Your task to perform on an android device: show emergency info Image 0: 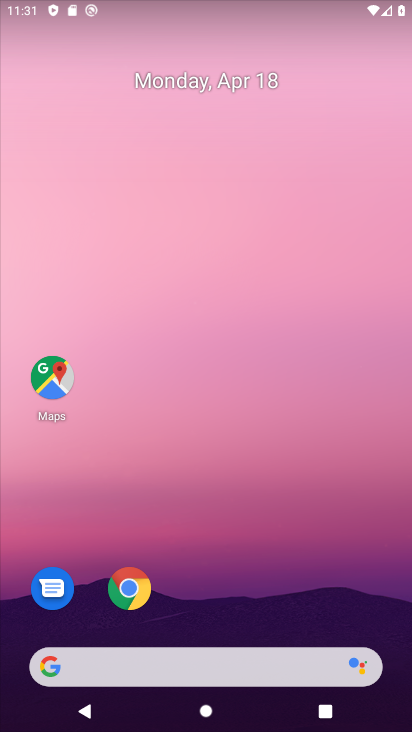
Step 0: click (250, 47)
Your task to perform on an android device: show emergency info Image 1: 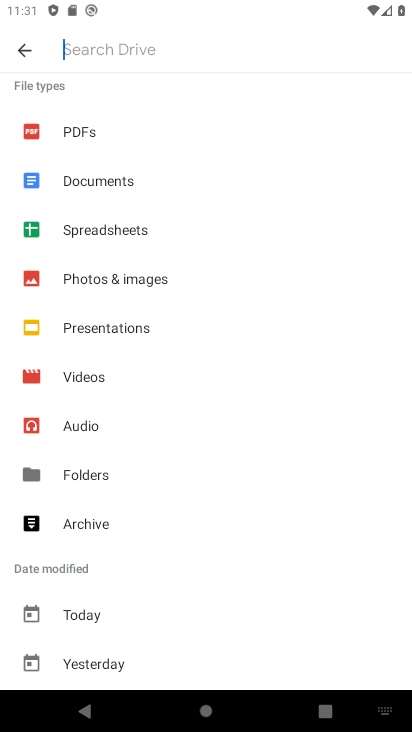
Step 1: press back button
Your task to perform on an android device: show emergency info Image 2: 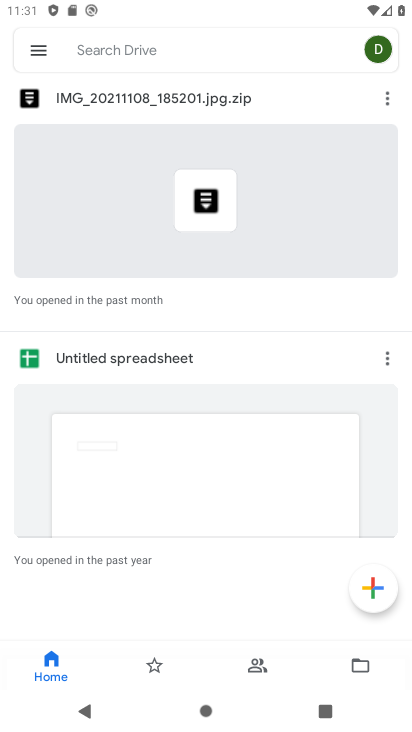
Step 2: press back button
Your task to perform on an android device: show emergency info Image 3: 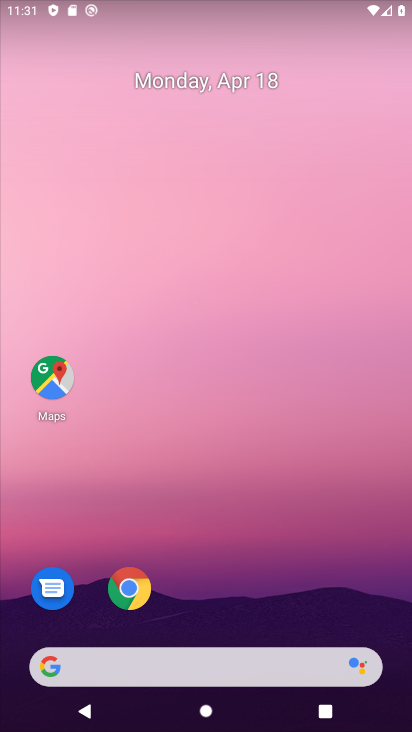
Step 3: drag from (251, 581) to (226, 29)
Your task to perform on an android device: show emergency info Image 4: 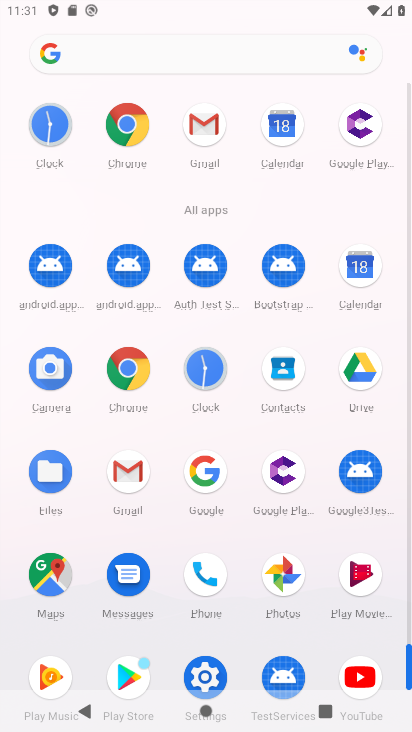
Step 4: drag from (8, 535) to (8, 397)
Your task to perform on an android device: show emergency info Image 5: 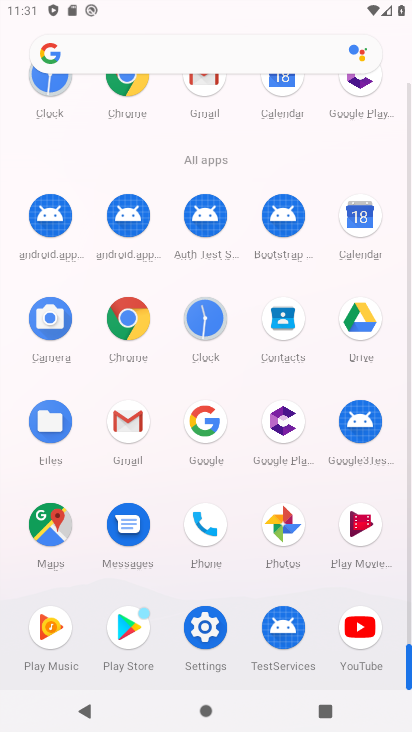
Step 5: click (210, 627)
Your task to perform on an android device: show emergency info Image 6: 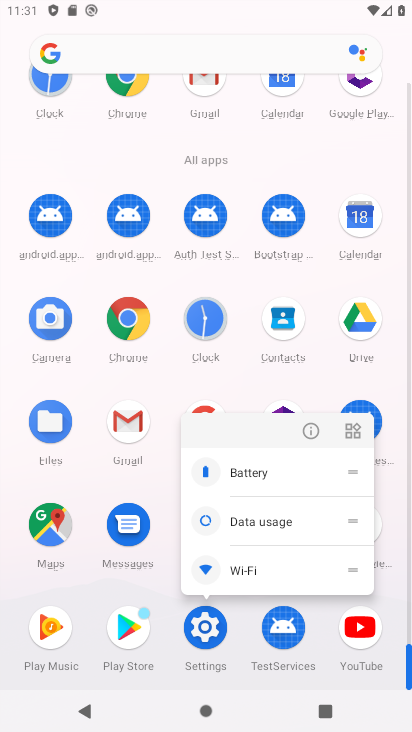
Step 6: click (210, 627)
Your task to perform on an android device: show emergency info Image 7: 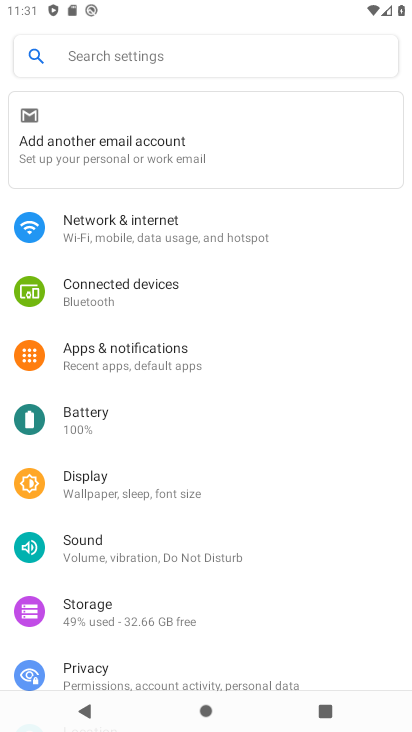
Step 7: drag from (276, 617) to (270, 126)
Your task to perform on an android device: show emergency info Image 8: 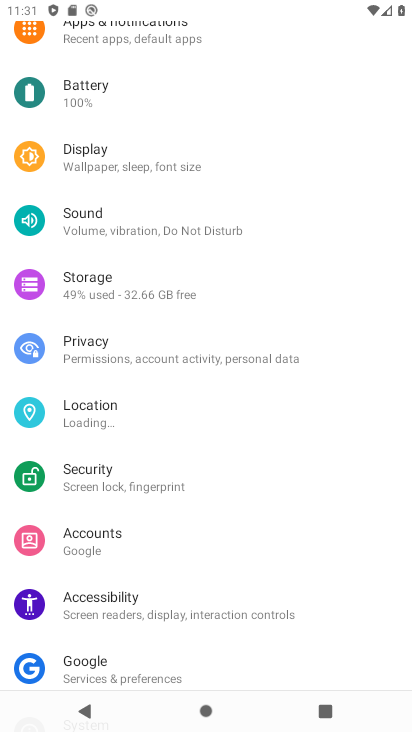
Step 8: drag from (257, 607) to (270, 235)
Your task to perform on an android device: show emergency info Image 9: 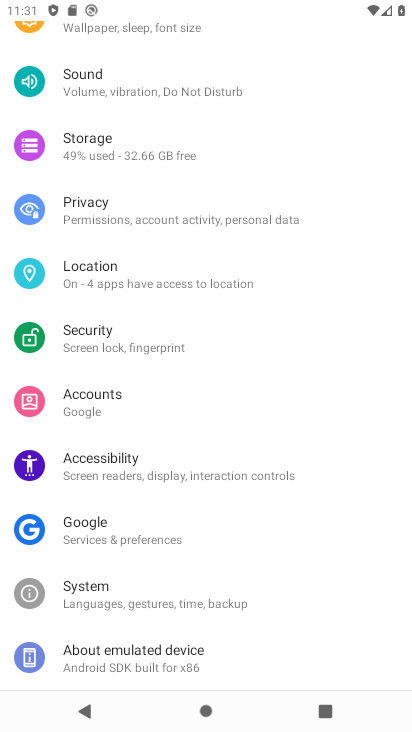
Step 9: click (175, 639)
Your task to perform on an android device: show emergency info Image 10: 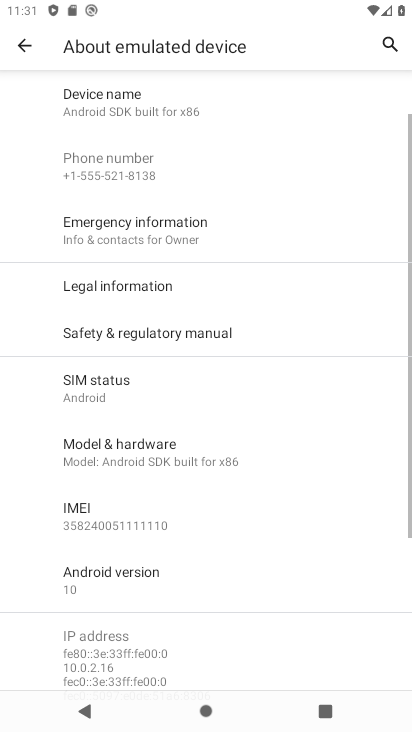
Step 10: click (181, 230)
Your task to perform on an android device: show emergency info Image 11: 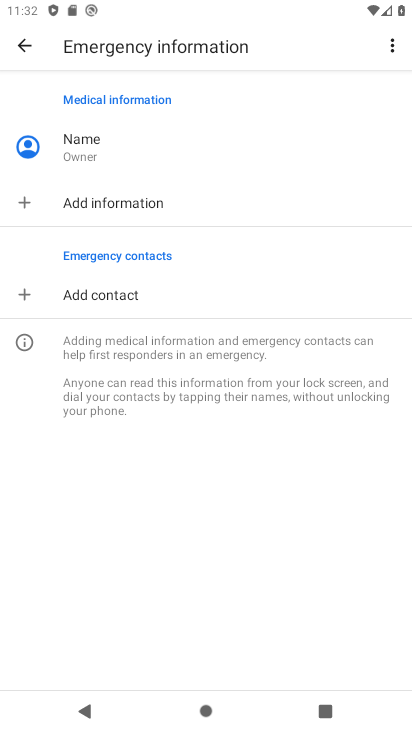
Step 11: task complete